Your task to perform on an android device: delete the emails in spam in the gmail app Image 0: 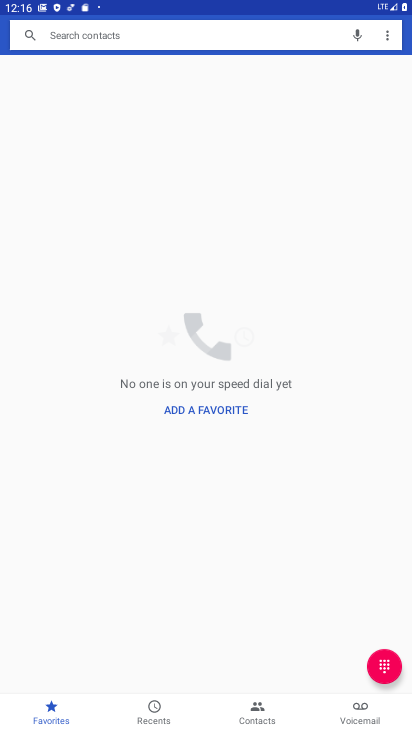
Step 0: press home button
Your task to perform on an android device: delete the emails in spam in the gmail app Image 1: 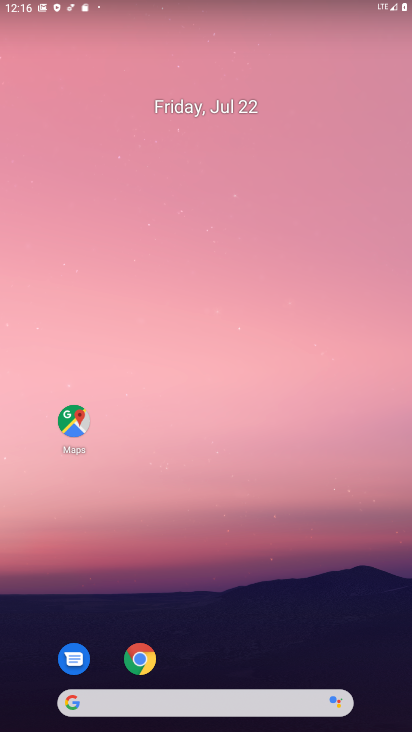
Step 1: drag from (187, 649) to (161, 214)
Your task to perform on an android device: delete the emails in spam in the gmail app Image 2: 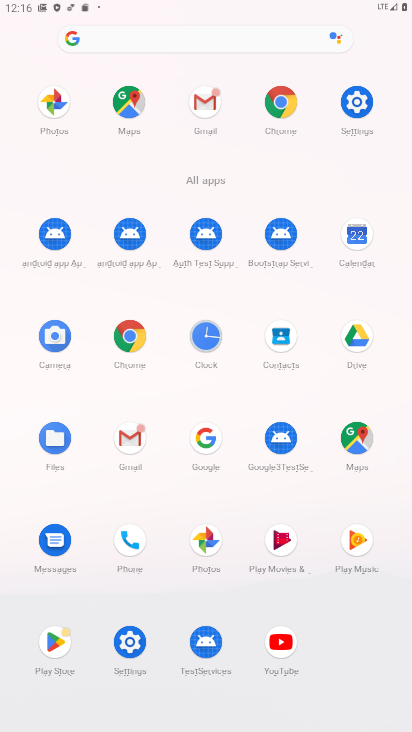
Step 2: click (215, 115)
Your task to perform on an android device: delete the emails in spam in the gmail app Image 3: 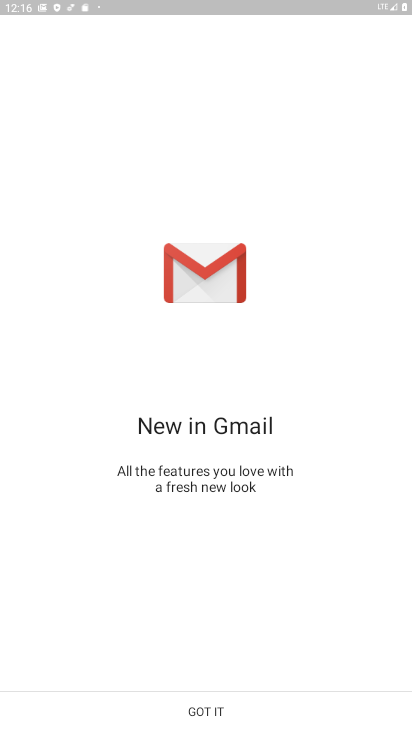
Step 3: click (245, 723)
Your task to perform on an android device: delete the emails in spam in the gmail app Image 4: 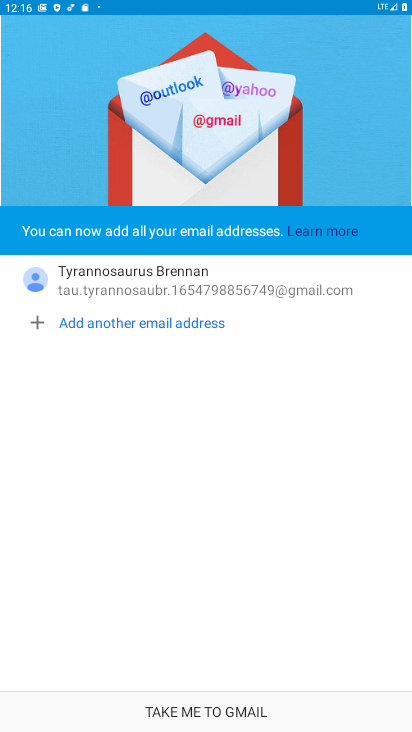
Step 4: click (245, 723)
Your task to perform on an android device: delete the emails in spam in the gmail app Image 5: 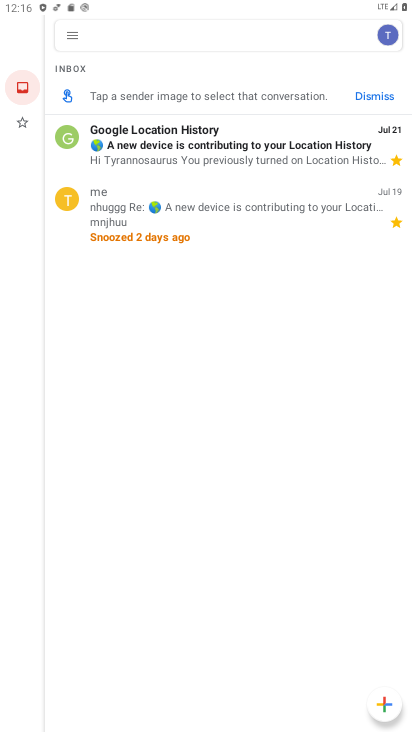
Step 5: click (67, 25)
Your task to perform on an android device: delete the emails in spam in the gmail app Image 6: 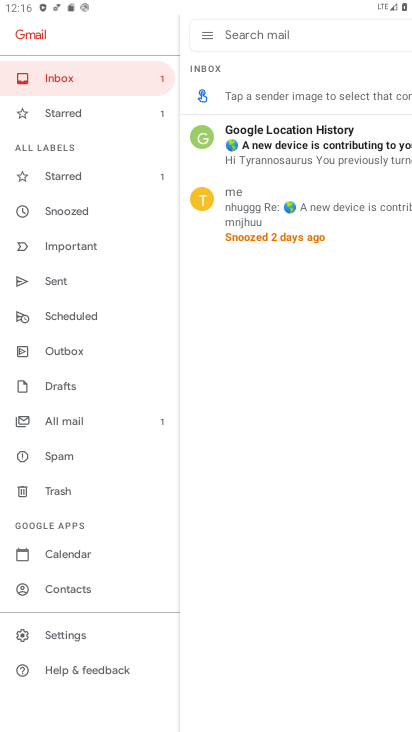
Step 6: click (77, 456)
Your task to perform on an android device: delete the emails in spam in the gmail app Image 7: 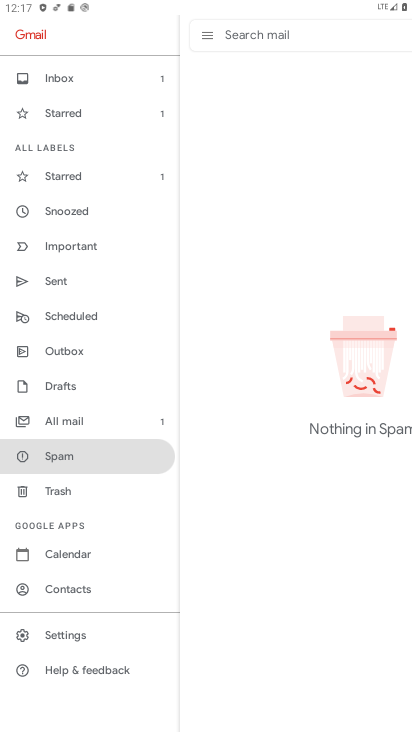
Step 7: task complete